Your task to perform on an android device: turn on location history Image 0: 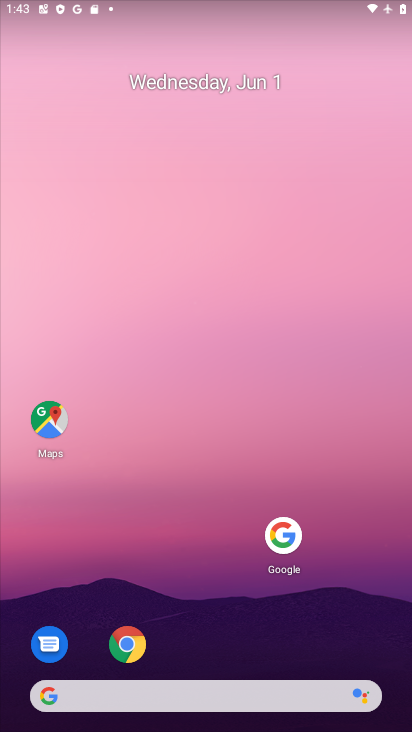
Step 0: press home button
Your task to perform on an android device: turn on location history Image 1: 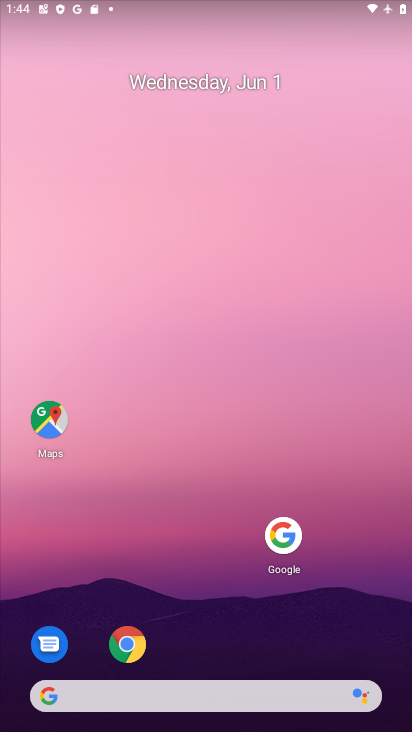
Step 1: click (47, 417)
Your task to perform on an android device: turn on location history Image 2: 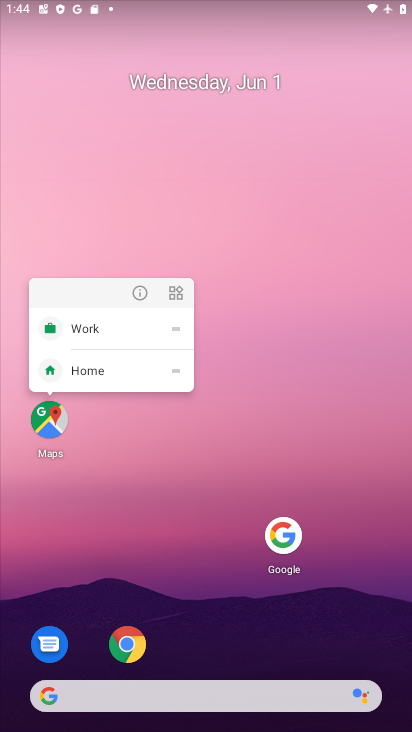
Step 2: click (47, 419)
Your task to perform on an android device: turn on location history Image 3: 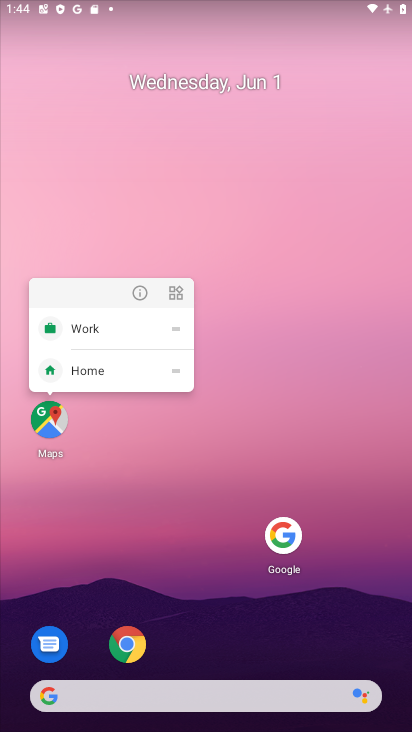
Step 3: click (47, 419)
Your task to perform on an android device: turn on location history Image 4: 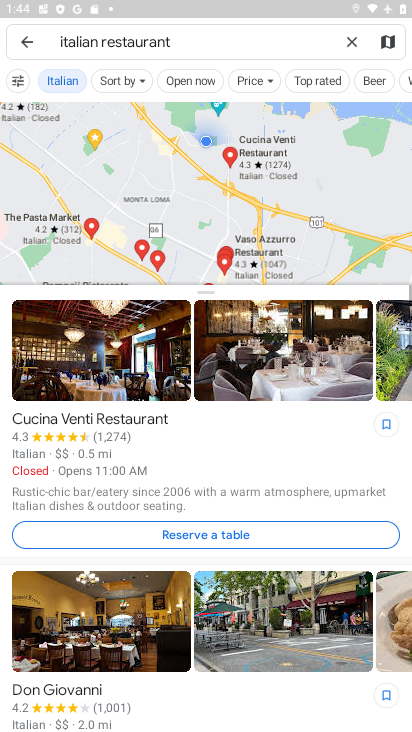
Step 4: click (26, 35)
Your task to perform on an android device: turn on location history Image 5: 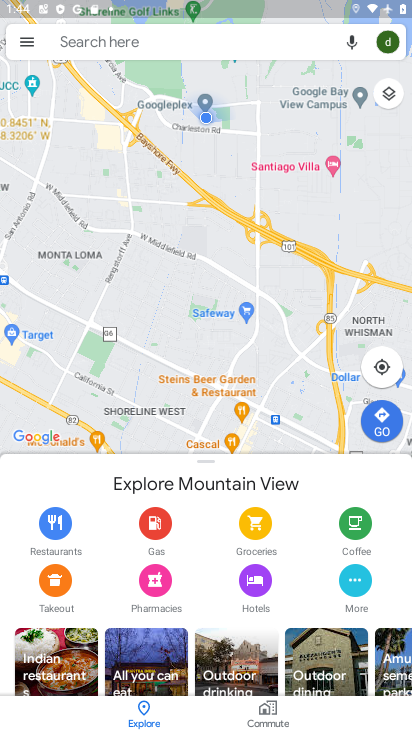
Step 5: click (24, 37)
Your task to perform on an android device: turn on location history Image 6: 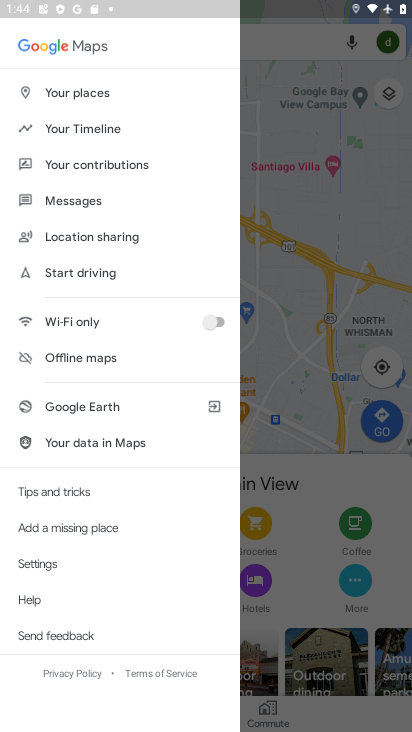
Step 6: click (74, 129)
Your task to perform on an android device: turn on location history Image 7: 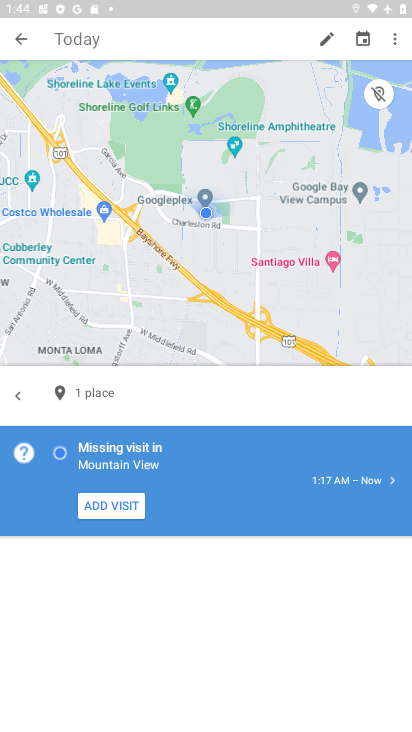
Step 7: click (397, 40)
Your task to perform on an android device: turn on location history Image 8: 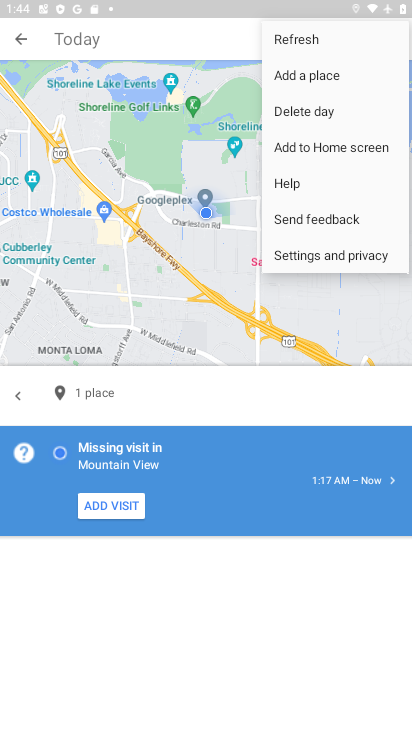
Step 8: click (306, 257)
Your task to perform on an android device: turn on location history Image 9: 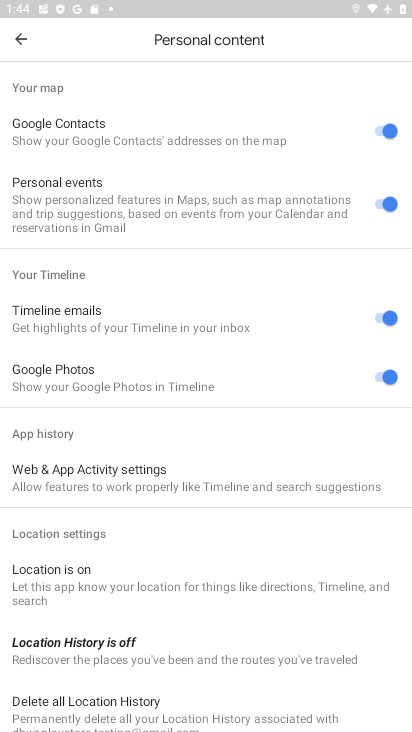
Step 9: drag from (159, 617) to (255, 421)
Your task to perform on an android device: turn on location history Image 10: 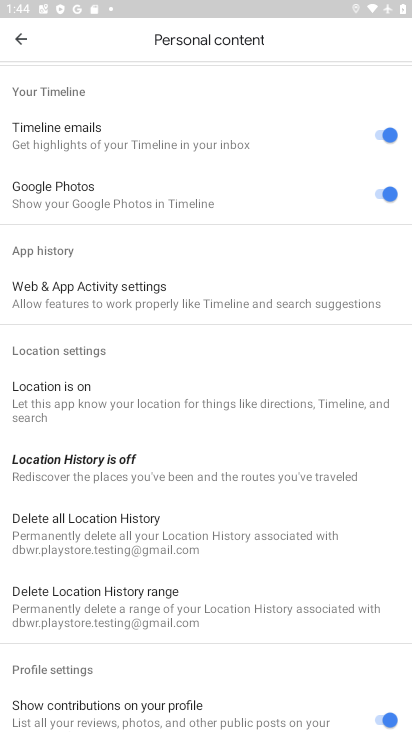
Step 10: click (82, 458)
Your task to perform on an android device: turn on location history Image 11: 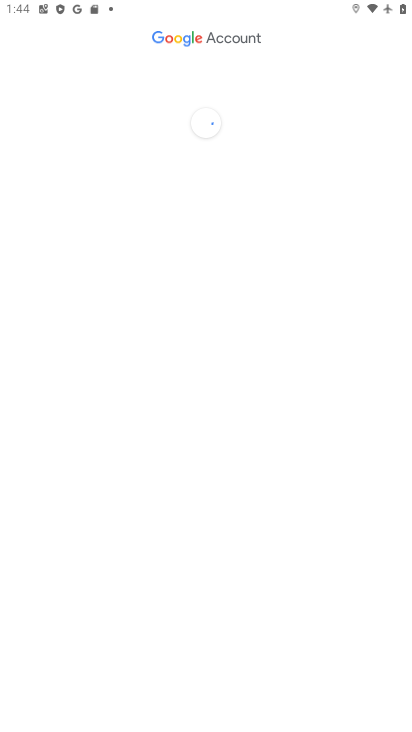
Step 11: click (109, 461)
Your task to perform on an android device: turn on location history Image 12: 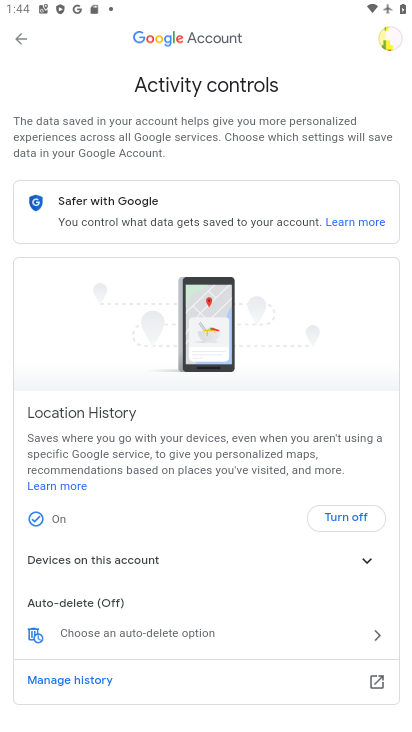
Step 12: task complete